Your task to perform on an android device: Open eBay Image 0: 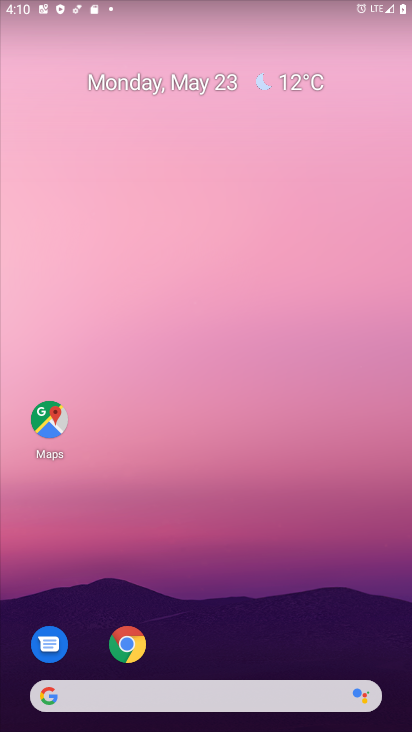
Step 0: click (142, 637)
Your task to perform on an android device: Open eBay Image 1: 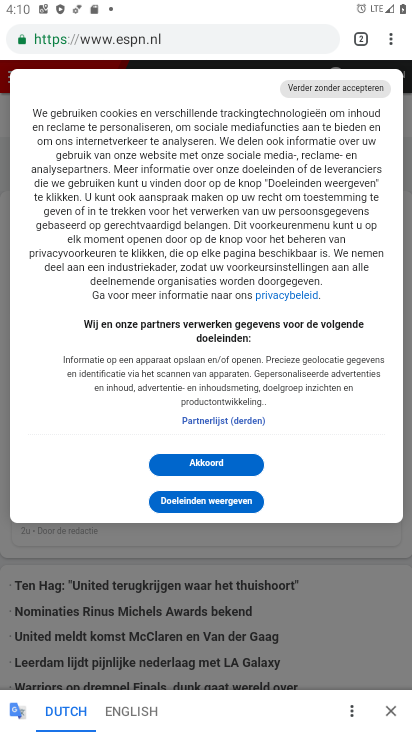
Step 1: click (227, 36)
Your task to perform on an android device: Open eBay Image 2: 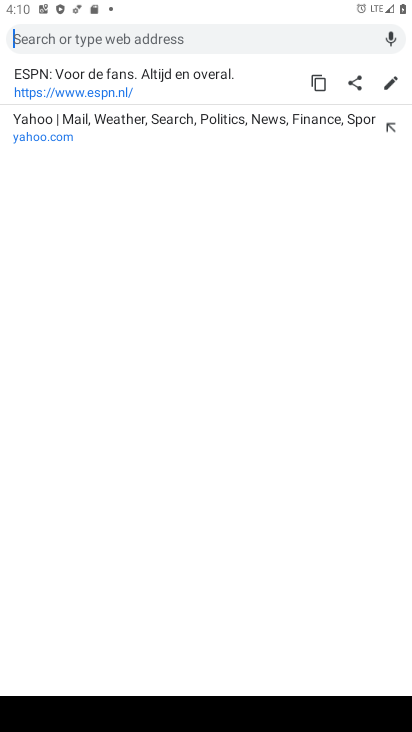
Step 2: type "ebay"
Your task to perform on an android device: Open eBay Image 3: 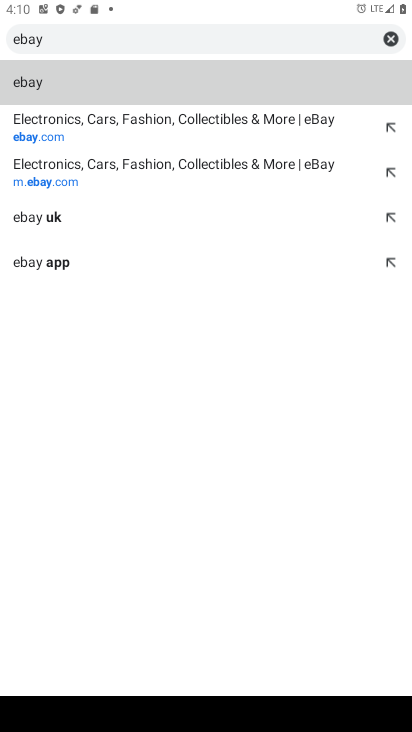
Step 3: click (63, 141)
Your task to perform on an android device: Open eBay Image 4: 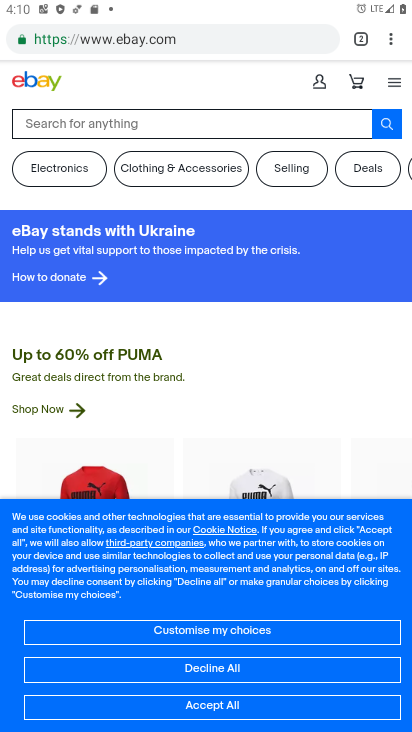
Step 4: task complete